Your task to perform on an android device: Go to sound settings Image 0: 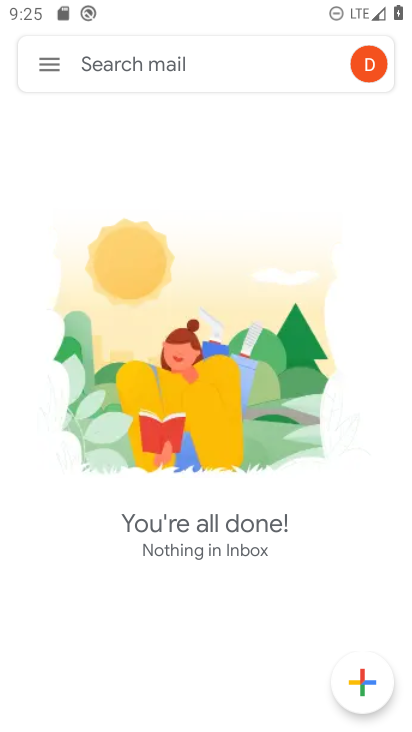
Step 0: press home button
Your task to perform on an android device: Go to sound settings Image 1: 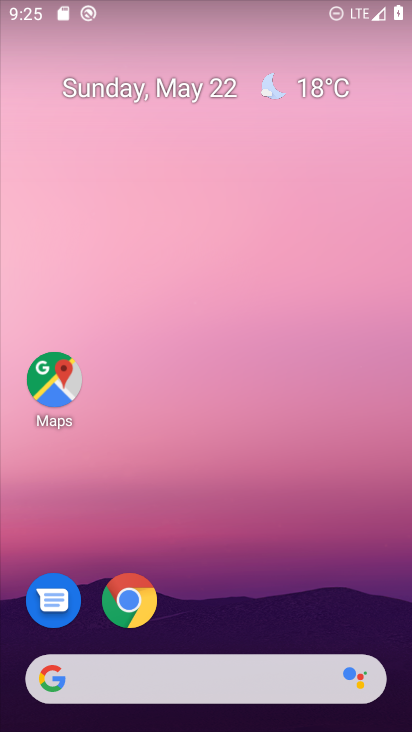
Step 1: drag from (376, 670) to (217, 3)
Your task to perform on an android device: Go to sound settings Image 2: 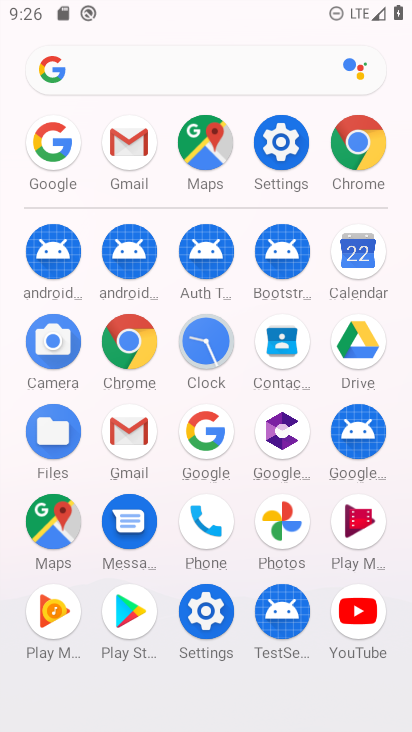
Step 2: click (219, 604)
Your task to perform on an android device: Go to sound settings Image 3: 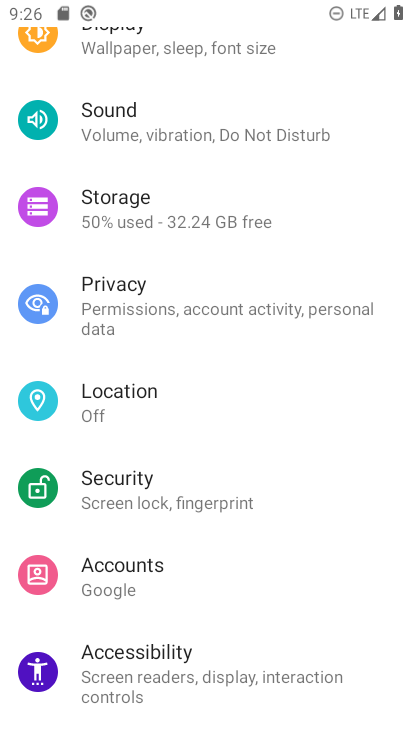
Step 3: click (153, 125)
Your task to perform on an android device: Go to sound settings Image 4: 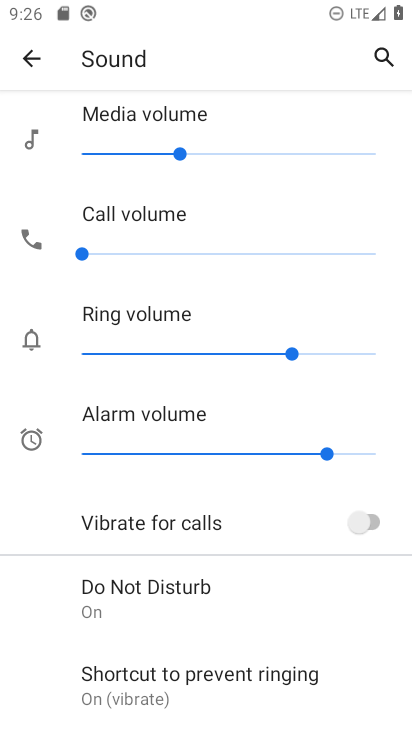
Step 4: task complete